Your task to perform on an android device: turn off translation in the chrome app Image 0: 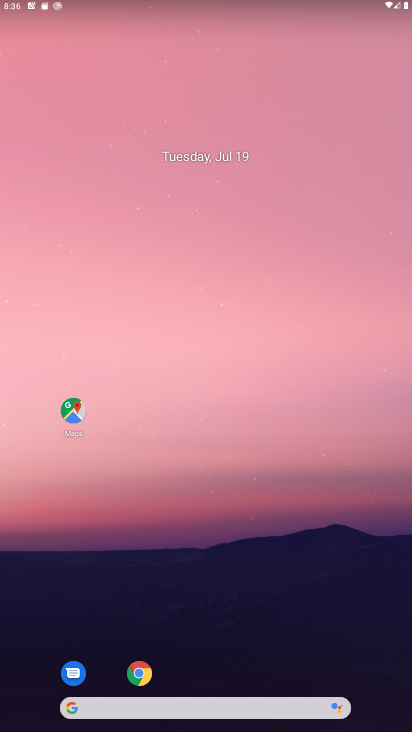
Step 0: click (139, 673)
Your task to perform on an android device: turn off translation in the chrome app Image 1: 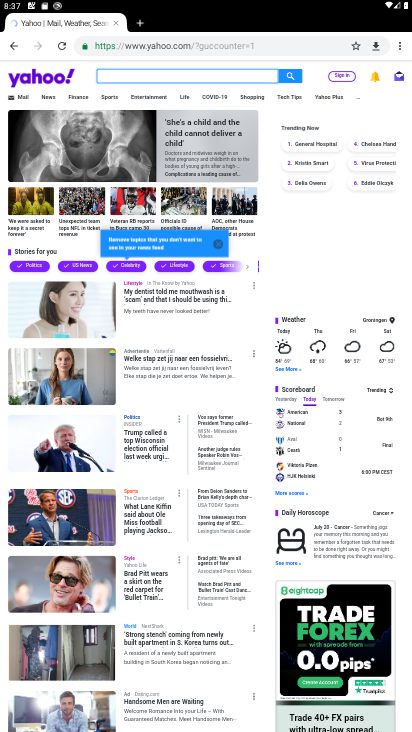
Step 1: click (400, 51)
Your task to perform on an android device: turn off translation in the chrome app Image 2: 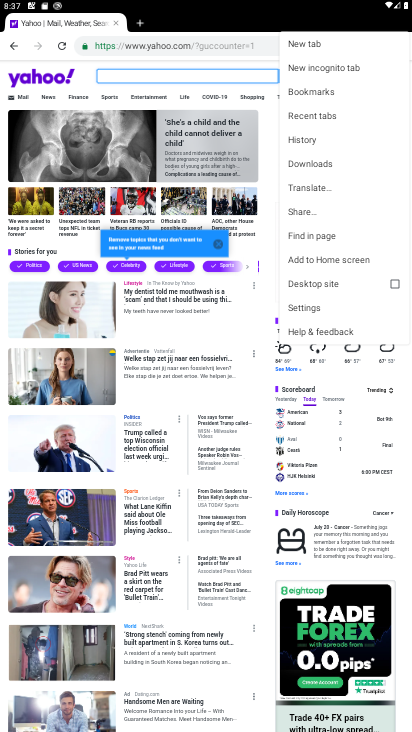
Step 2: click (307, 308)
Your task to perform on an android device: turn off translation in the chrome app Image 3: 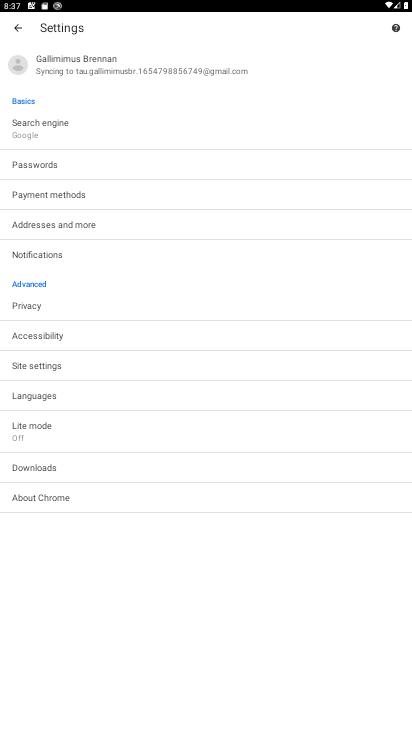
Step 3: click (34, 401)
Your task to perform on an android device: turn off translation in the chrome app Image 4: 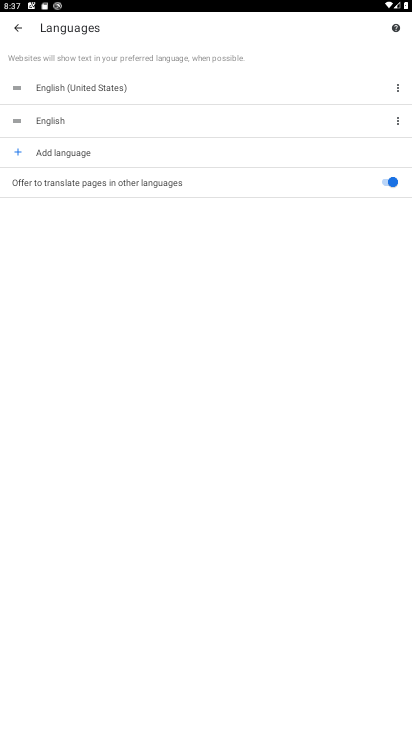
Step 4: click (385, 182)
Your task to perform on an android device: turn off translation in the chrome app Image 5: 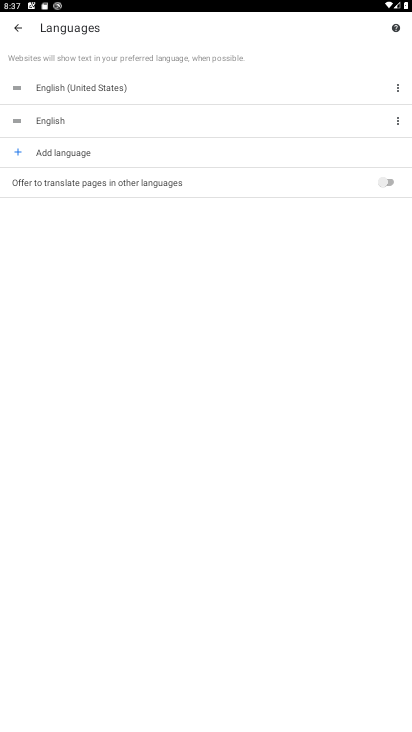
Step 5: task complete